Your task to perform on an android device: Search for a new blush on Sephora Image 0: 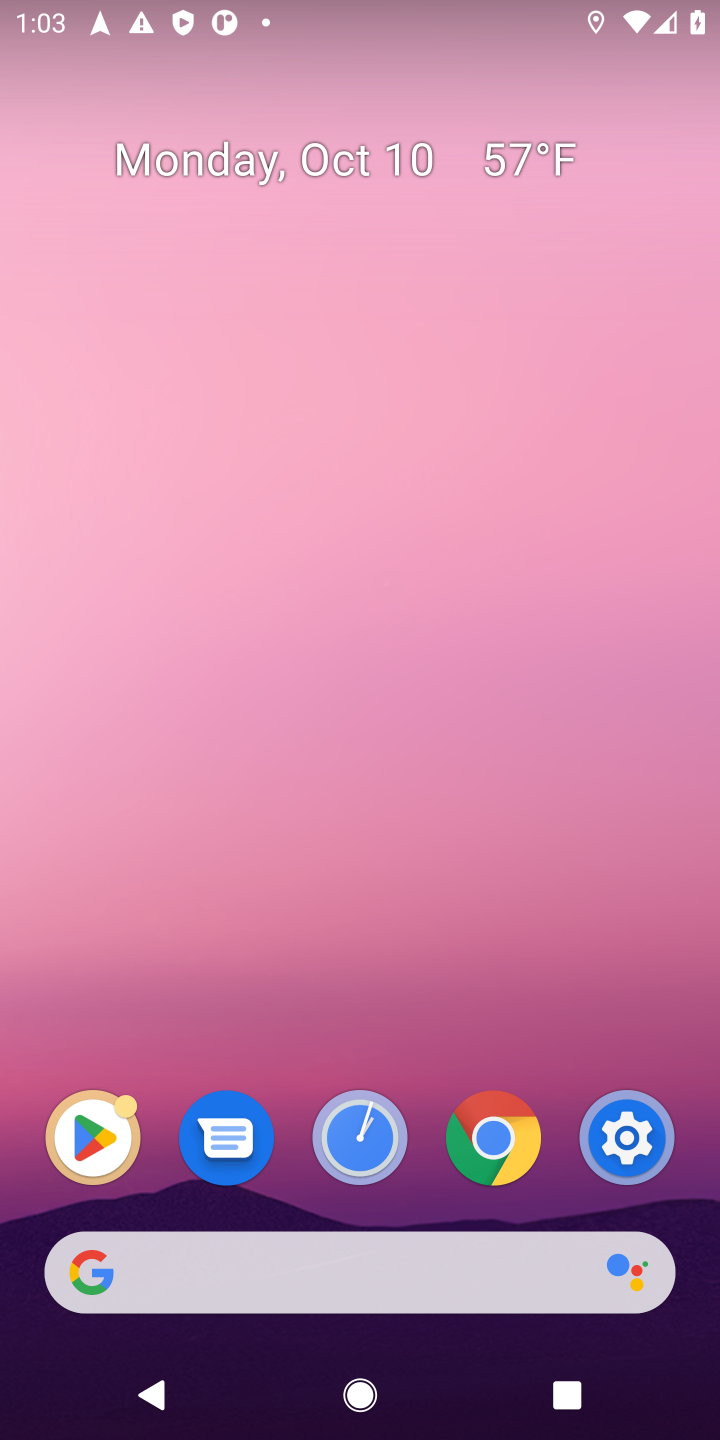
Step 0: click (421, 1283)
Your task to perform on an android device: Search for a new blush on Sephora Image 1: 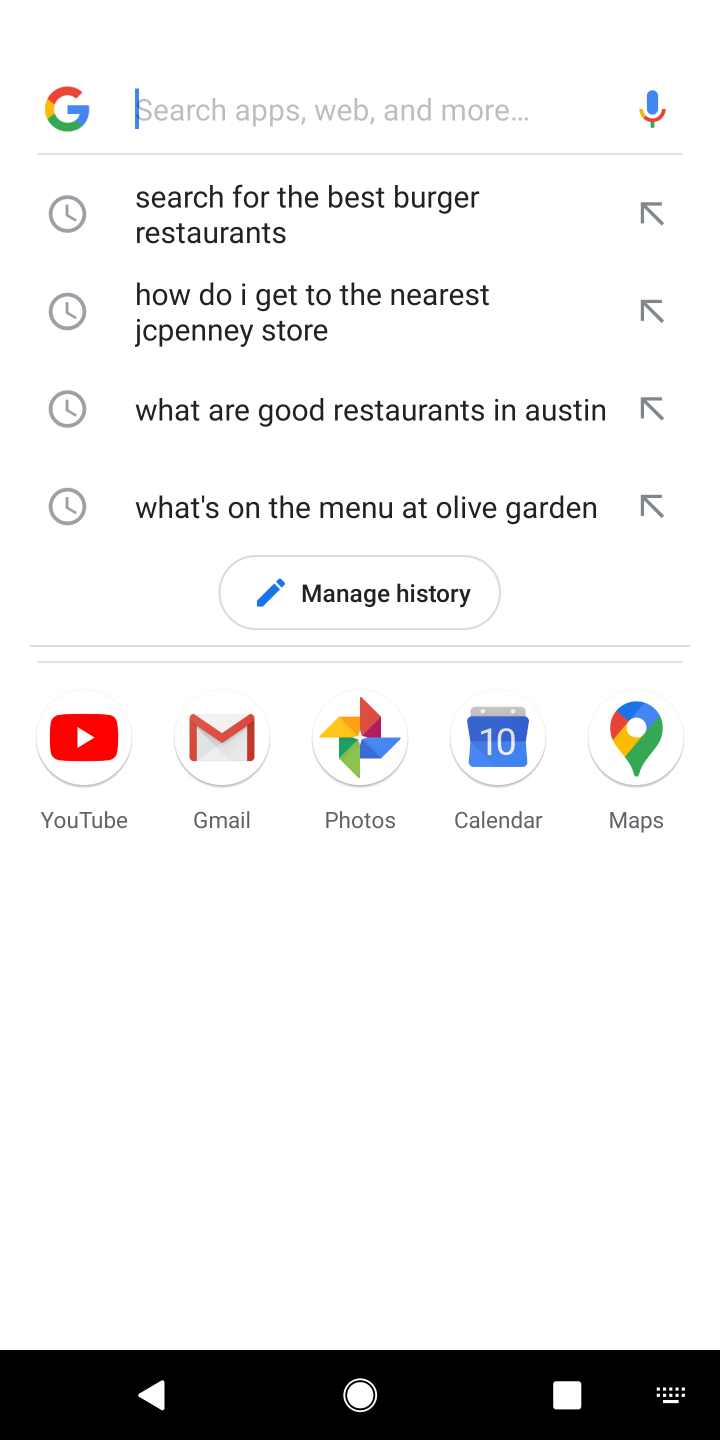
Step 1: type "Search for a new blush on Sephora"
Your task to perform on an android device: Search for a new blush on Sephora Image 2: 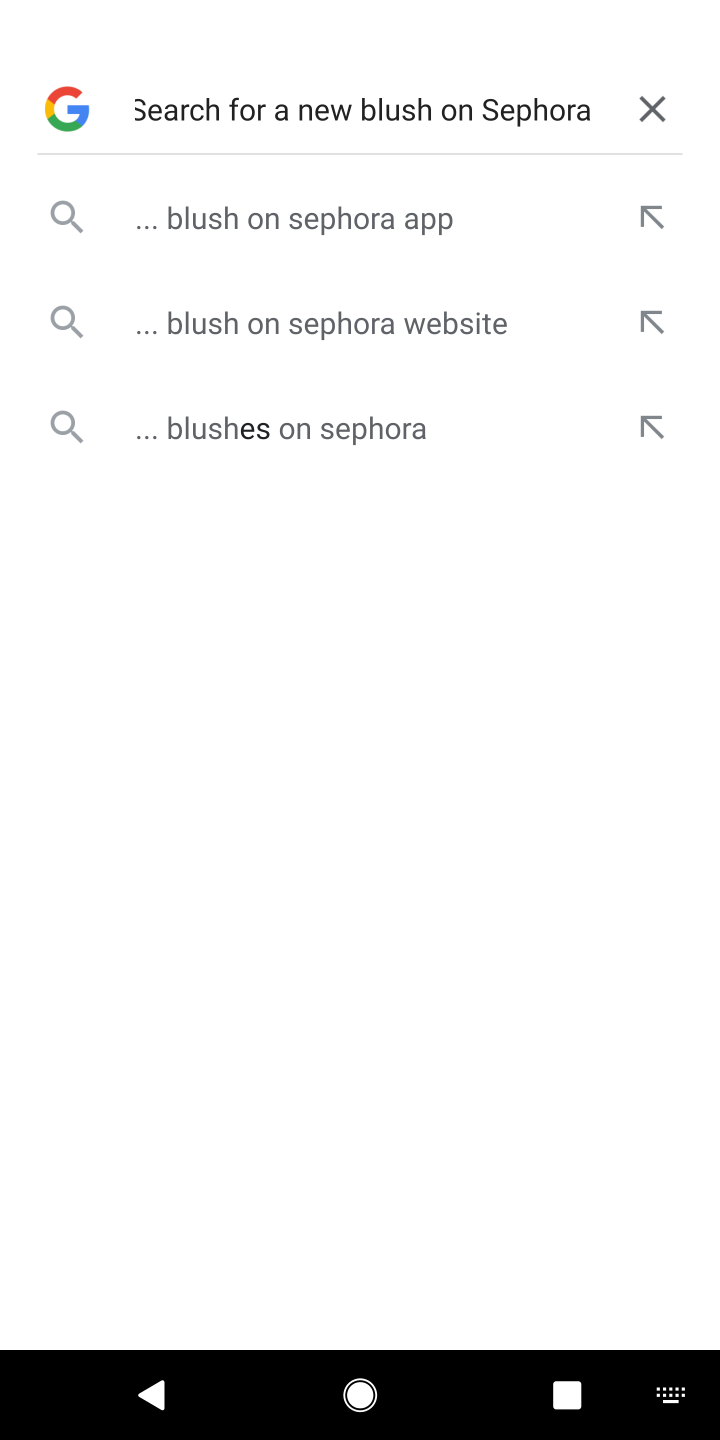
Step 2: click (292, 435)
Your task to perform on an android device: Search for a new blush on Sephora Image 3: 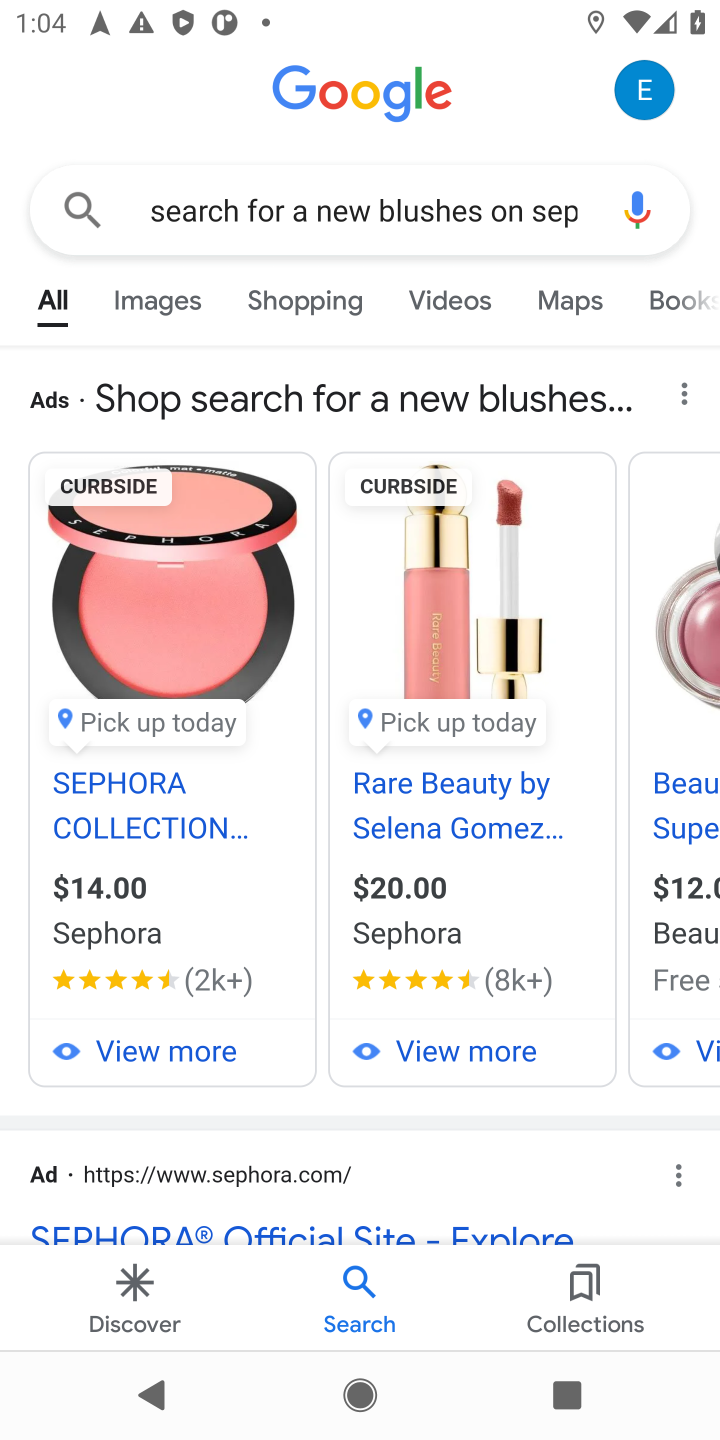
Step 3: task complete